Your task to perform on an android device: Is it going to rain this weekend? Image 0: 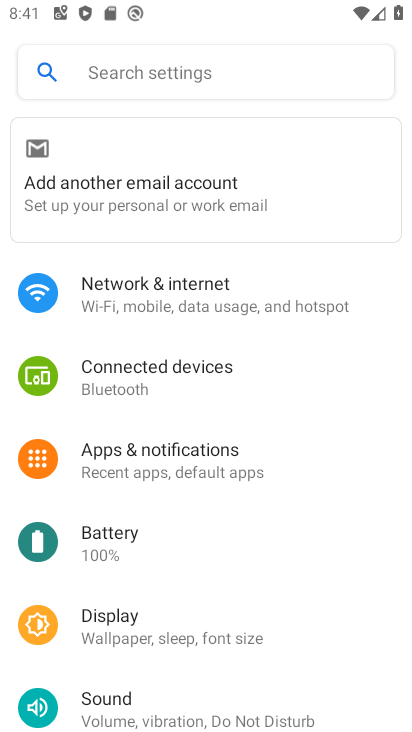
Step 0: press home button
Your task to perform on an android device: Is it going to rain this weekend? Image 1: 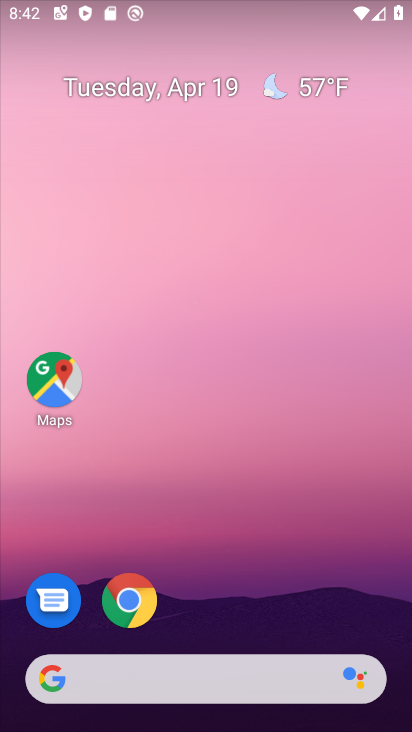
Step 1: click (389, 687)
Your task to perform on an android device: Is it going to rain this weekend? Image 2: 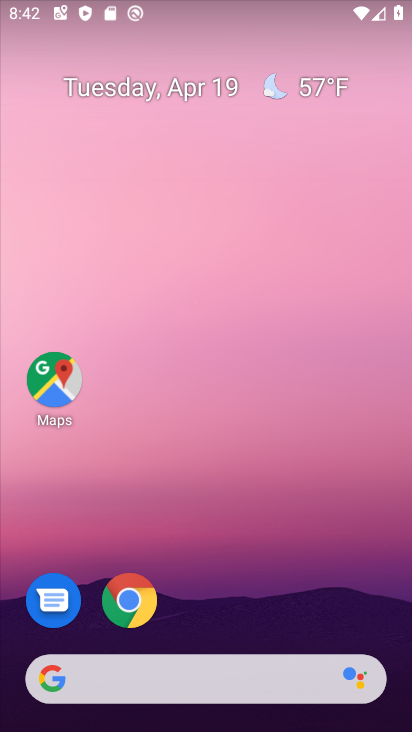
Step 2: click (177, 678)
Your task to perform on an android device: Is it going to rain this weekend? Image 3: 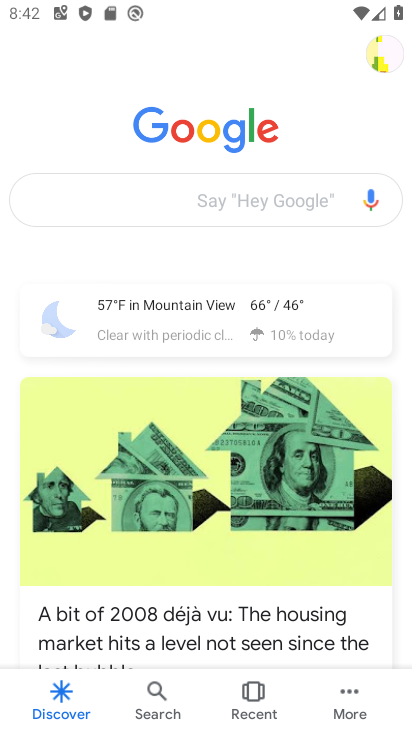
Step 3: click (193, 206)
Your task to perform on an android device: Is it going to rain this weekend? Image 4: 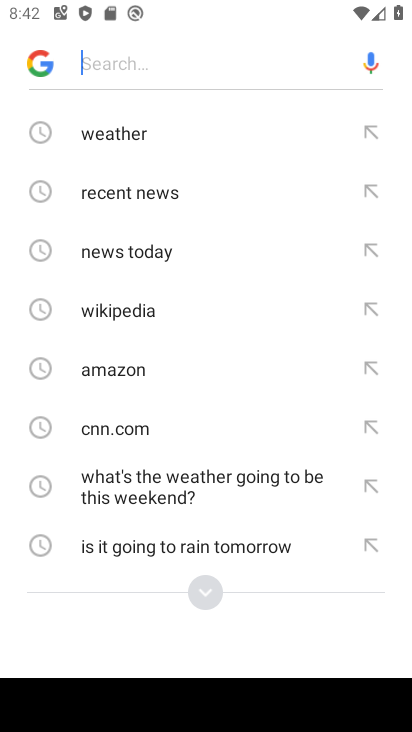
Step 4: click (127, 137)
Your task to perform on an android device: Is it going to rain this weekend? Image 5: 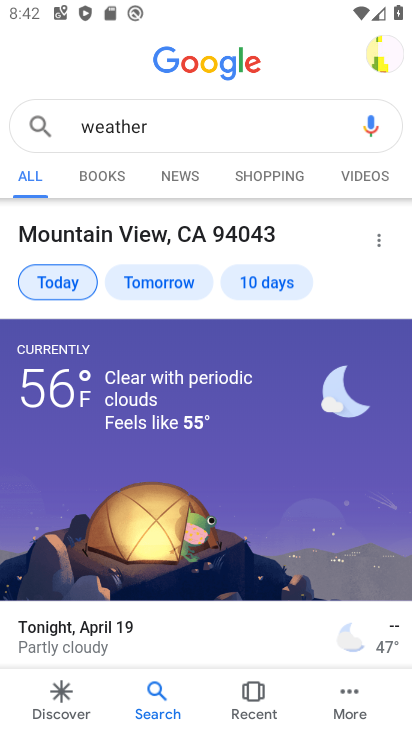
Step 5: click (265, 273)
Your task to perform on an android device: Is it going to rain this weekend? Image 6: 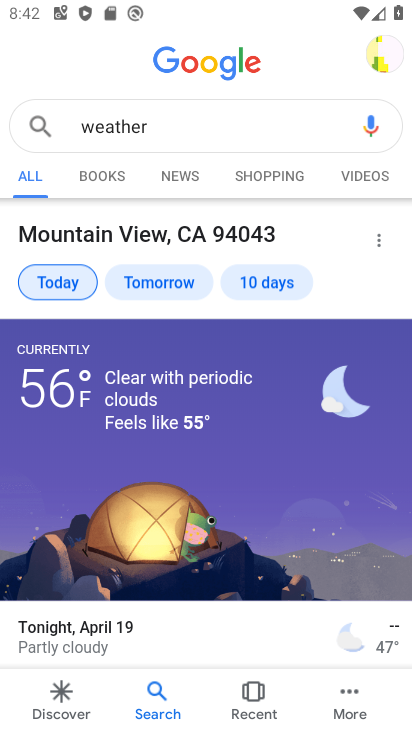
Step 6: click (285, 276)
Your task to perform on an android device: Is it going to rain this weekend? Image 7: 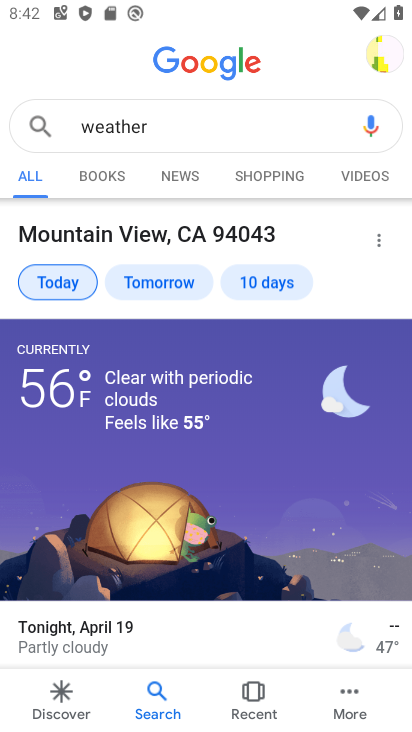
Step 7: click (268, 284)
Your task to perform on an android device: Is it going to rain this weekend? Image 8: 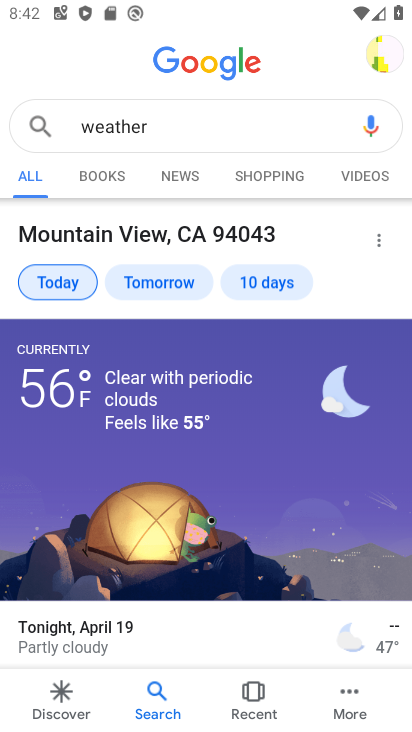
Step 8: click (276, 283)
Your task to perform on an android device: Is it going to rain this weekend? Image 9: 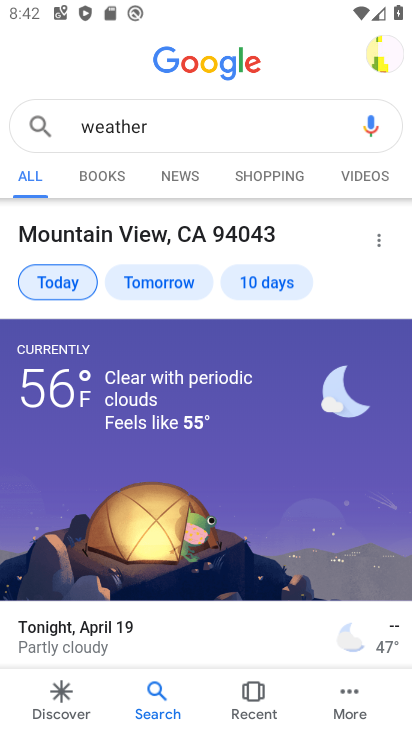
Step 9: drag from (333, 488) to (350, 202)
Your task to perform on an android device: Is it going to rain this weekend? Image 10: 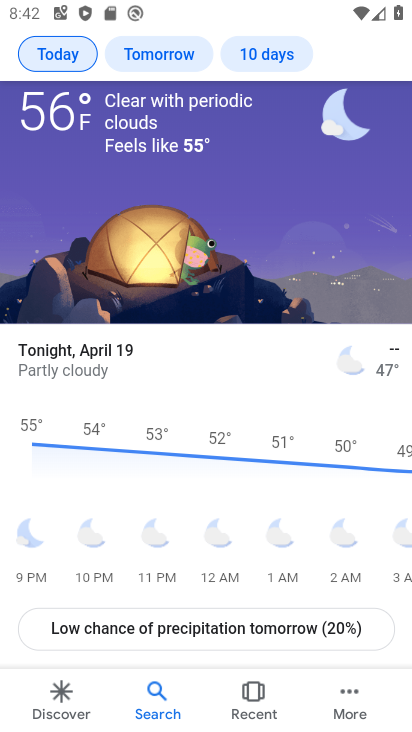
Step 10: click (282, 53)
Your task to perform on an android device: Is it going to rain this weekend? Image 11: 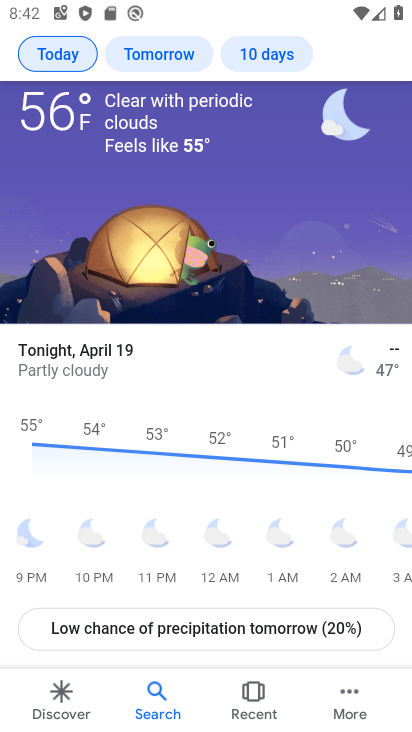
Step 11: task complete